Your task to perform on an android device: turn off javascript in the chrome app Image 0: 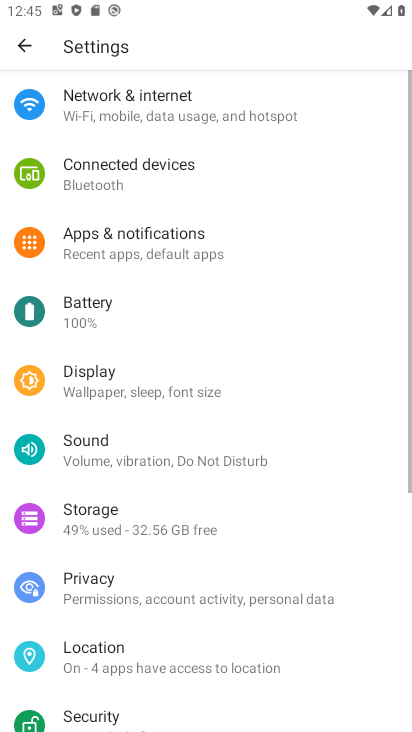
Step 0: press home button
Your task to perform on an android device: turn off javascript in the chrome app Image 1: 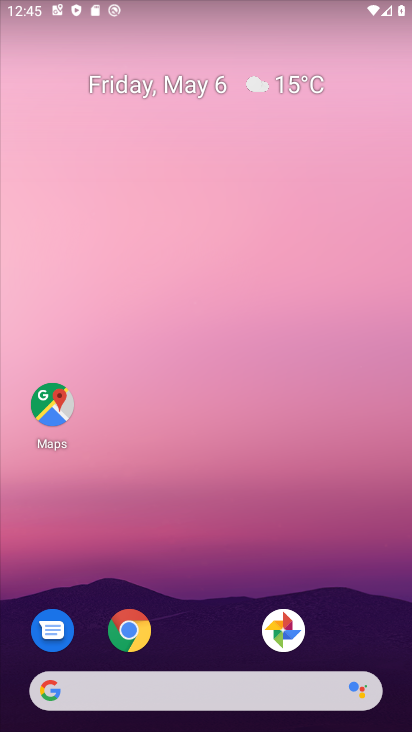
Step 1: drag from (256, 522) to (180, 17)
Your task to perform on an android device: turn off javascript in the chrome app Image 2: 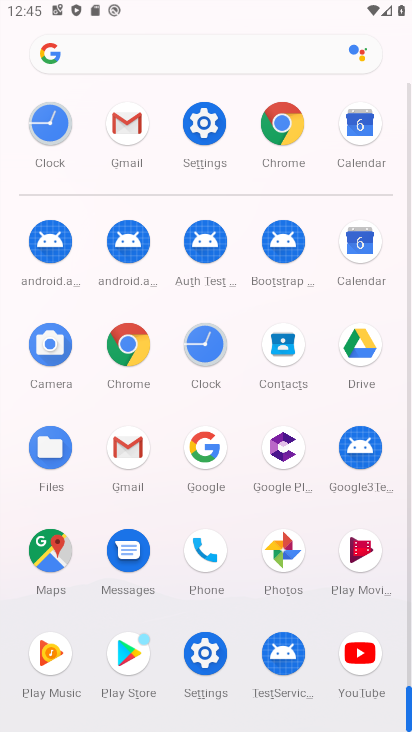
Step 2: click (287, 132)
Your task to perform on an android device: turn off javascript in the chrome app Image 3: 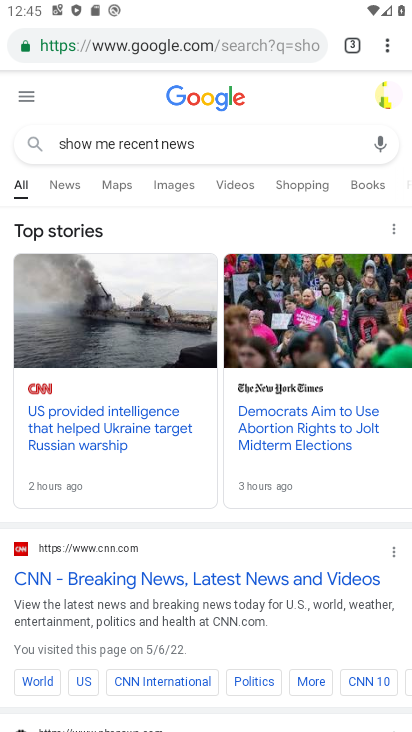
Step 3: click (386, 48)
Your task to perform on an android device: turn off javascript in the chrome app Image 4: 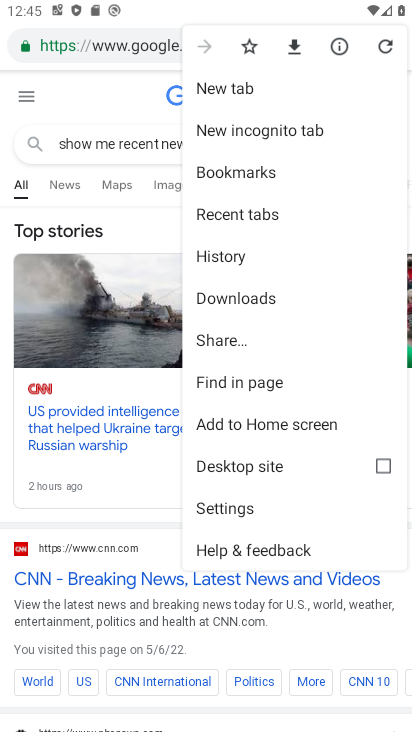
Step 4: click (248, 505)
Your task to perform on an android device: turn off javascript in the chrome app Image 5: 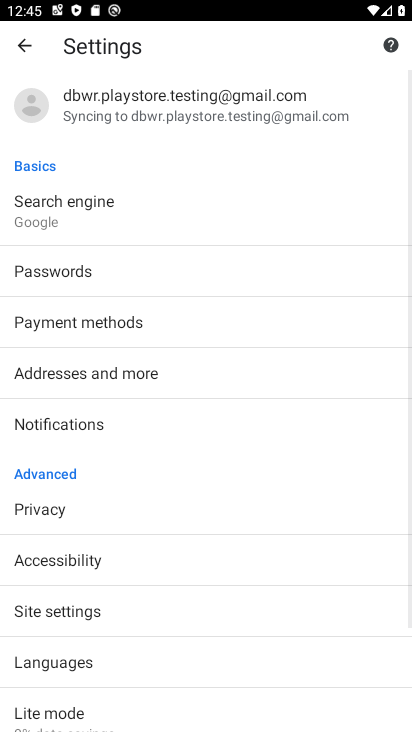
Step 5: click (120, 607)
Your task to perform on an android device: turn off javascript in the chrome app Image 6: 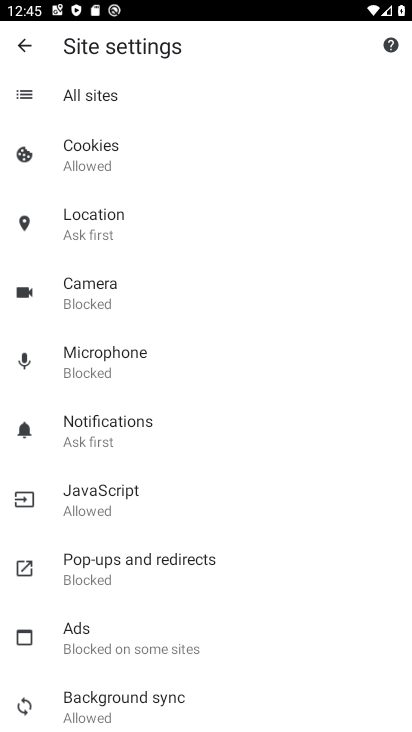
Step 6: click (101, 489)
Your task to perform on an android device: turn off javascript in the chrome app Image 7: 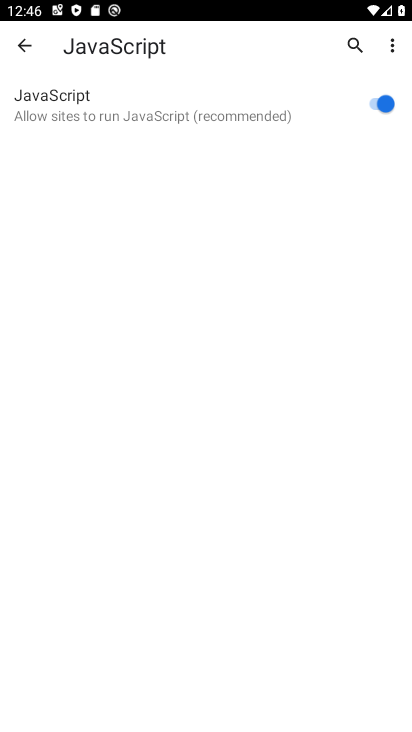
Step 7: click (386, 99)
Your task to perform on an android device: turn off javascript in the chrome app Image 8: 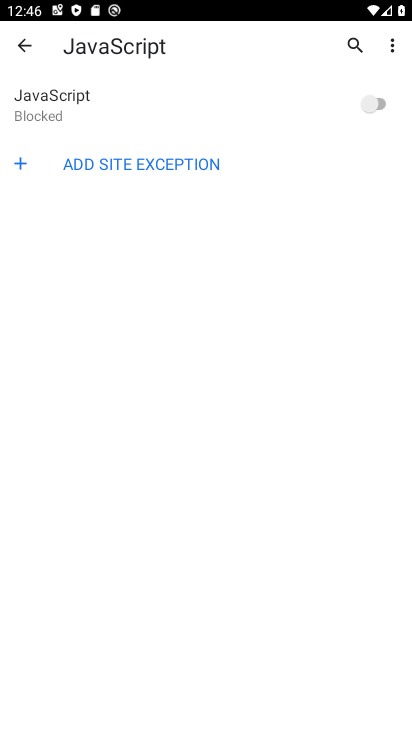
Step 8: task complete